Your task to perform on an android device: change the clock display to analog Image 0: 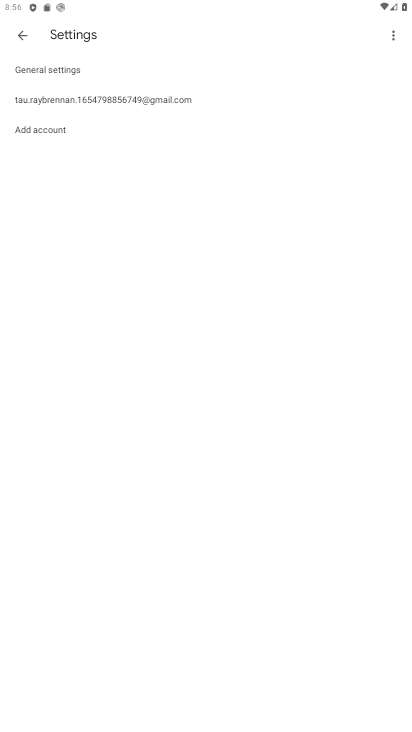
Step 0: press home button
Your task to perform on an android device: change the clock display to analog Image 1: 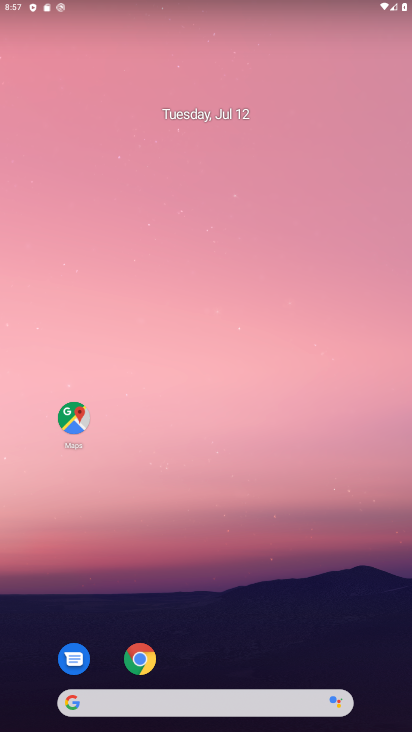
Step 1: drag from (228, 685) to (318, 112)
Your task to perform on an android device: change the clock display to analog Image 2: 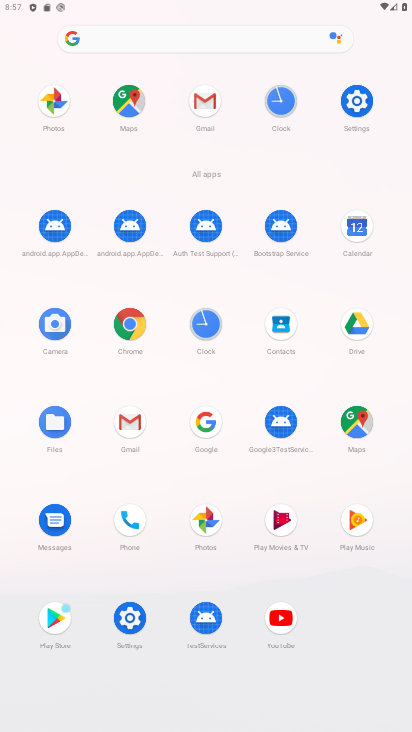
Step 2: click (213, 321)
Your task to perform on an android device: change the clock display to analog Image 3: 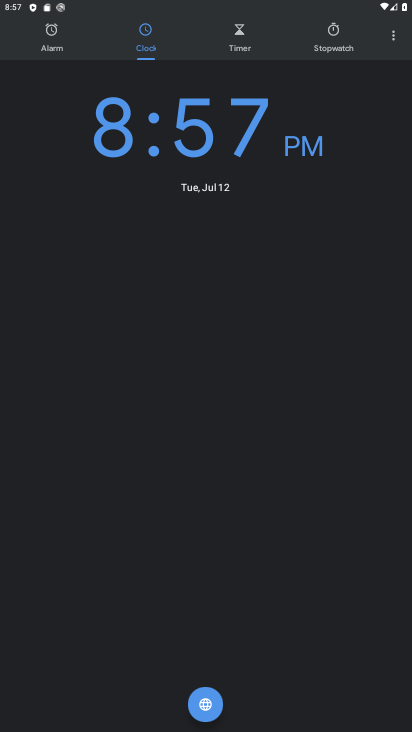
Step 3: click (396, 36)
Your task to perform on an android device: change the clock display to analog Image 4: 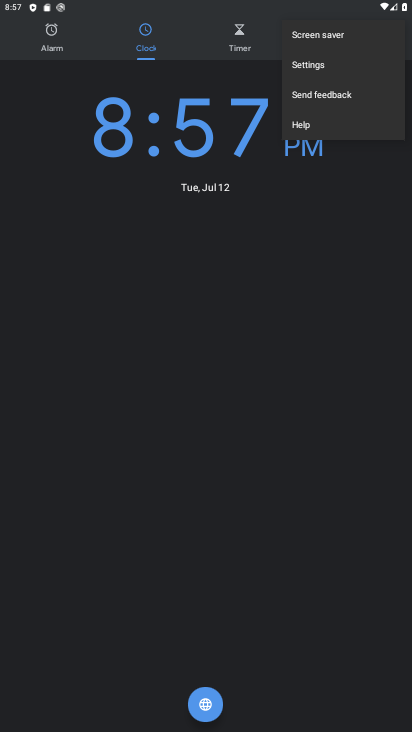
Step 4: click (355, 66)
Your task to perform on an android device: change the clock display to analog Image 5: 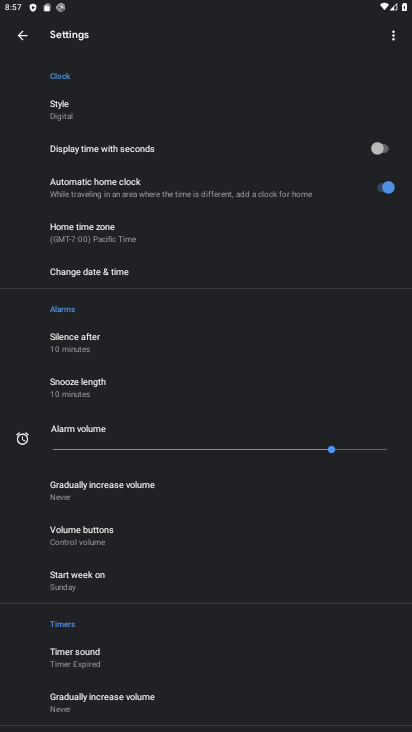
Step 5: click (118, 116)
Your task to perform on an android device: change the clock display to analog Image 6: 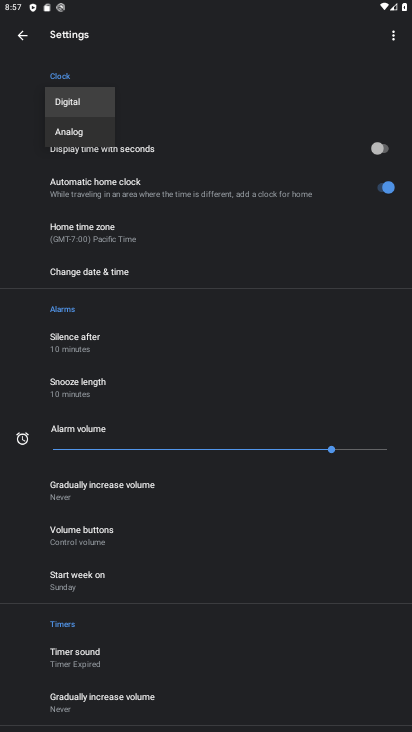
Step 6: click (79, 132)
Your task to perform on an android device: change the clock display to analog Image 7: 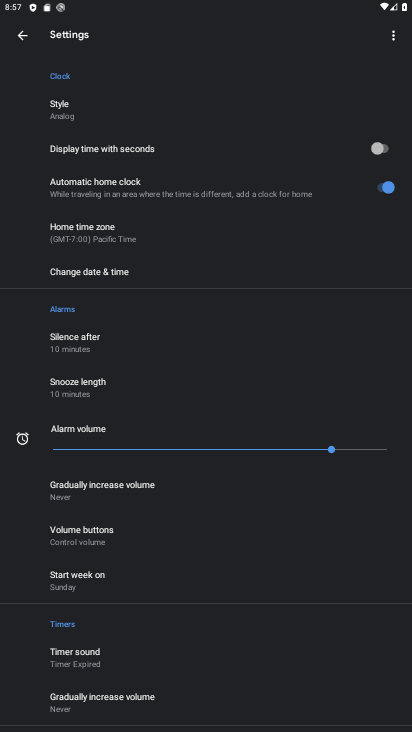
Step 7: task complete